Your task to perform on an android device: Open Google Maps Image 0: 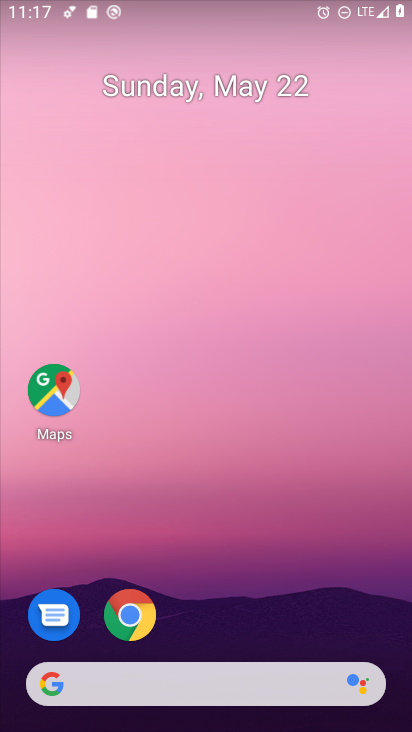
Step 0: click (52, 397)
Your task to perform on an android device: Open Google Maps Image 1: 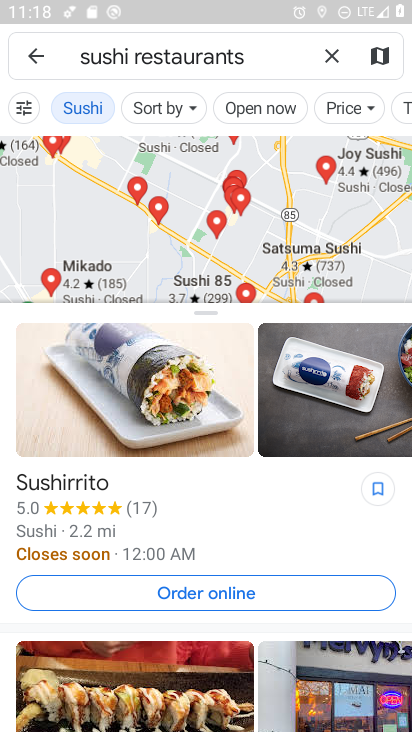
Step 1: task complete